Your task to perform on an android device: Open the calendar and show me this week's events Image 0: 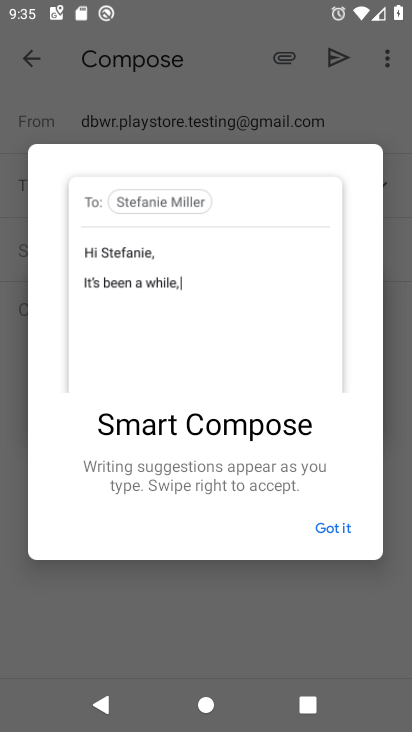
Step 0: press home button
Your task to perform on an android device: Open the calendar and show me this week's events Image 1: 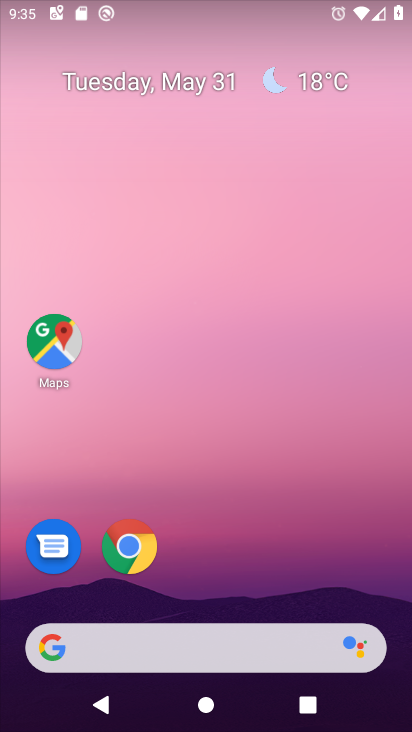
Step 1: drag from (183, 584) to (244, 105)
Your task to perform on an android device: Open the calendar and show me this week's events Image 2: 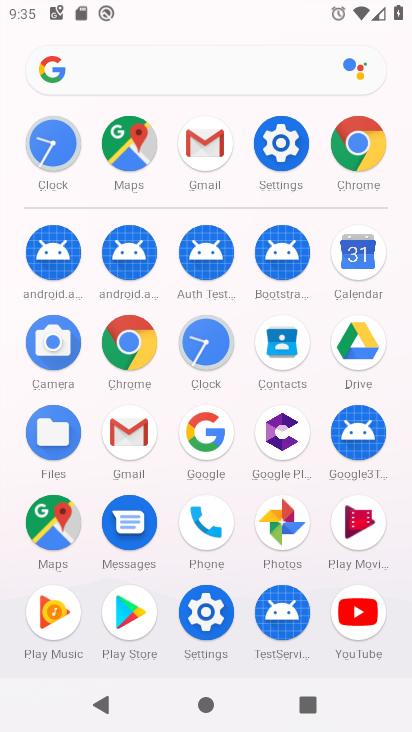
Step 2: click (363, 268)
Your task to perform on an android device: Open the calendar and show me this week's events Image 3: 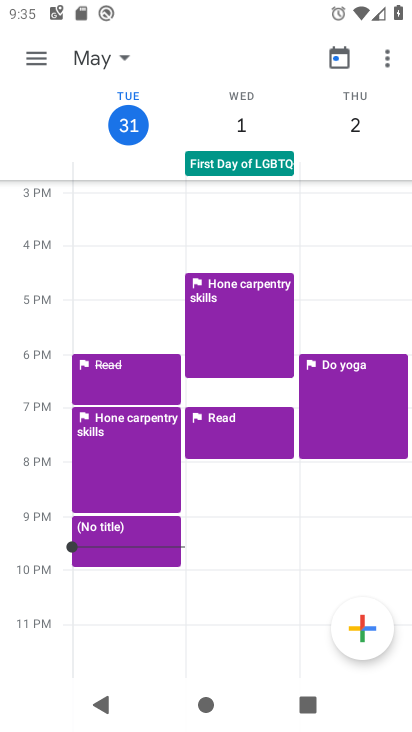
Step 3: click (30, 44)
Your task to perform on an android device: Open the calendar and show me this week's events Image 4: 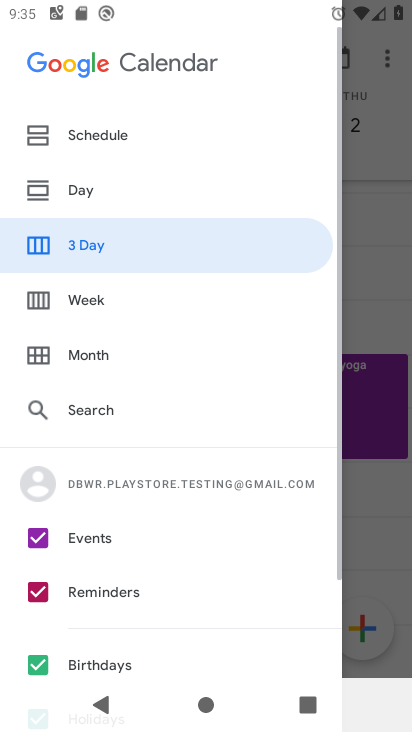
Step 4: click (92, 291)
Your task to perform on an android device: Open the calendar and show me this week's events Image 5: 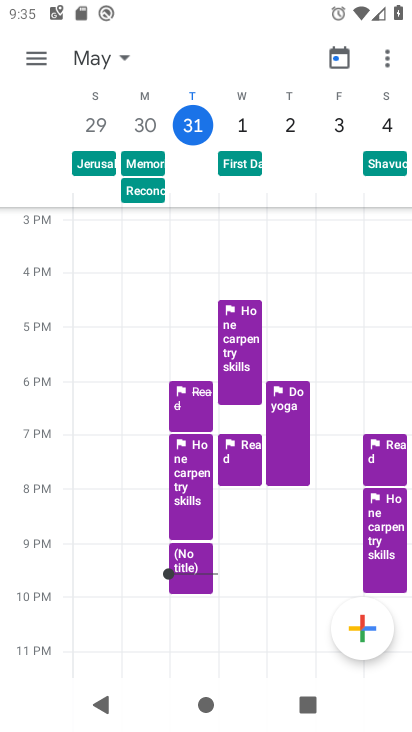
Step 5: click (26, 56)
Your task to perform on an android device: Open the calendar and show me this week's events Image 6: 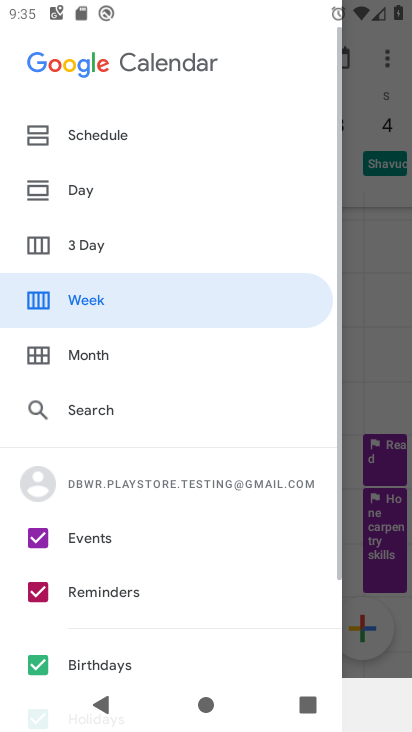
Step 6: drag from (117, 515) to (138, 272)
Your task to perform on an android device: Open the calendar and show me this week's events Image 7: 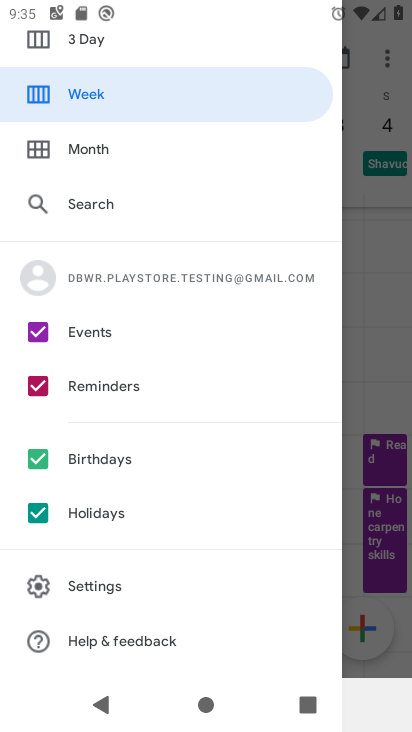
Step 7: click (124, 385)
Your task to perform on an android device: Open the calendar and show me this week's events Image 8: 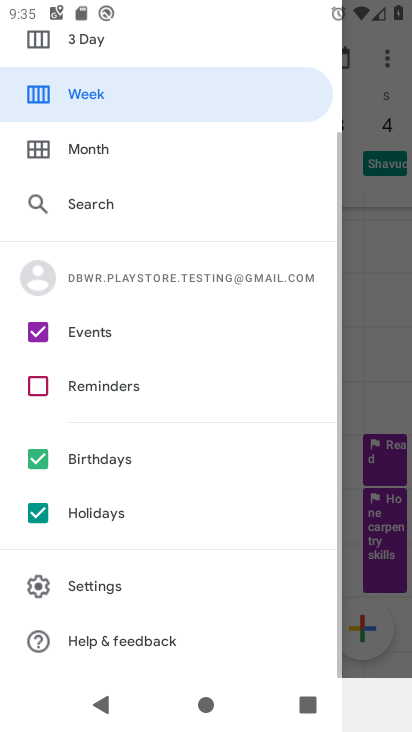
Step 8: click (111, 462)
Your task to perform on an android device: Open the calendar and show me this week's events Image 9: 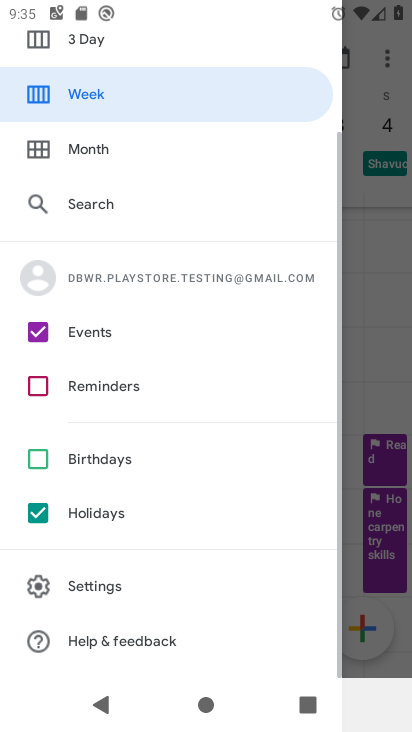
Step 9: click (88, 519)
Your task to perform on an android device: Open the calendar and show me this week's events Image 10: 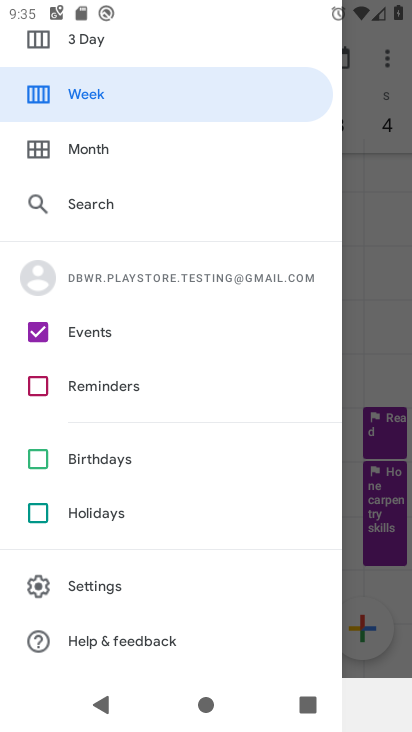
Step 10: click (117, 101)
Your task to perform on an android device: Open the calendar and show me this week's events Image 11: 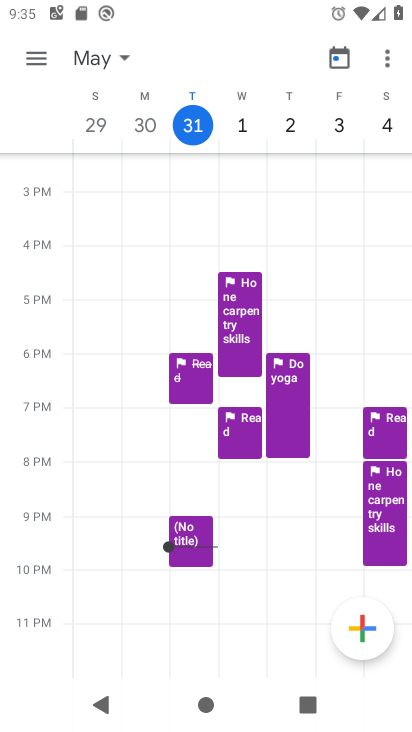
Step 11: task complete